Your task to perform on an android device: turn smart compose on in the gmail app Image 0: 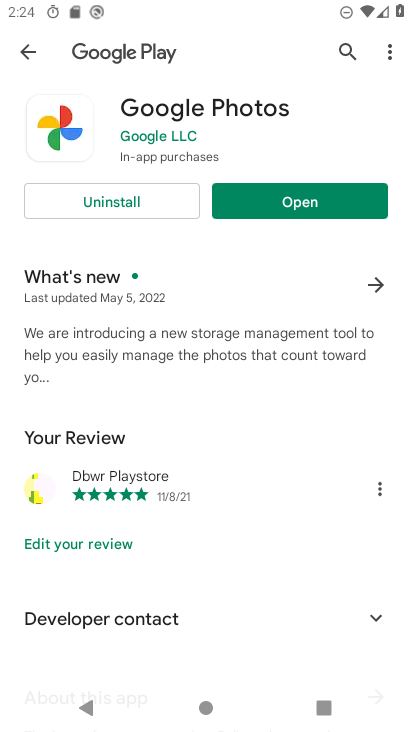
Step 0: press home button
Your task to perform on an android device: turn smart compose on in the gmail app Image 1: 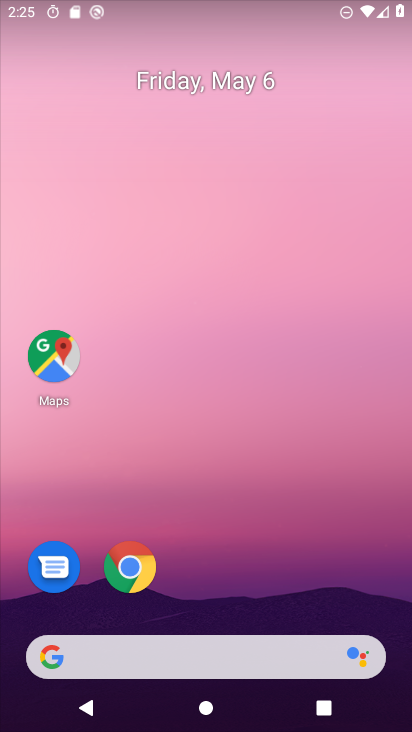
Step 1: drag from (323, 692) to (321, 197)
Your task to perform on an android device: turn smart compose on in the gmail app Image 2: 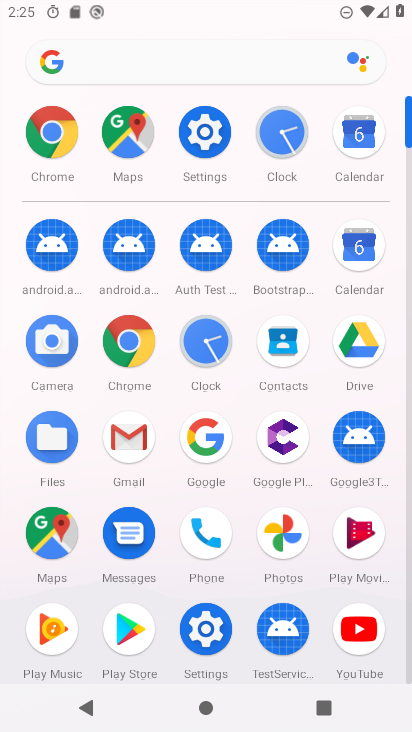
Step 2: click (114, 435)
Your task to perform on an android device: turn smart compose on in the gmail app Image 3: 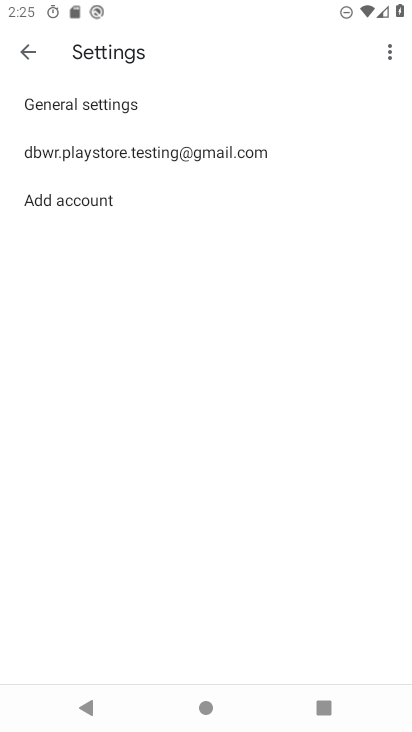
Step 3: click (190, 154)
Your task to perform on an android device: turn smart compose on in the gmail app Image 4: 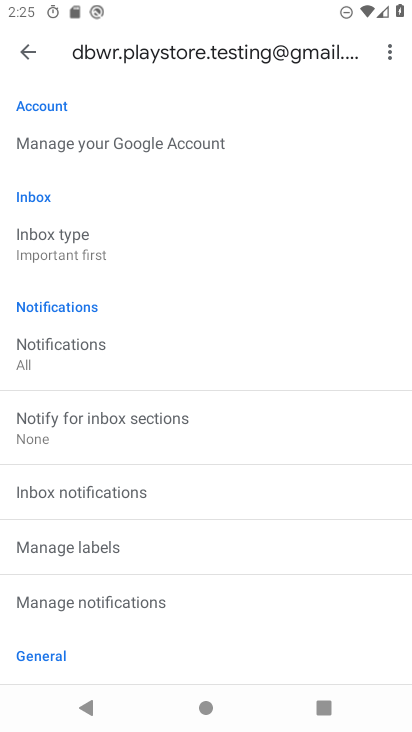
Step 4: drag from (147, 540) to (240, 191)
Your task to perform on an android device: turn smart compose on in the gmail app Image 5: 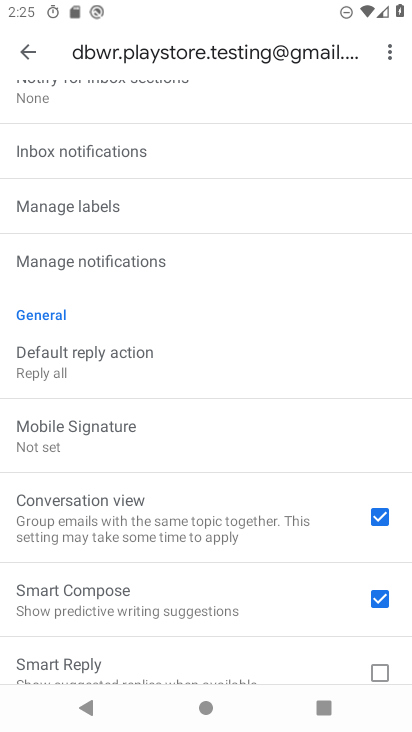
Step 5: drag from (183, 544) to (233, 272)
Your task to perform on an android device: turn smart compose on in the gmail app Image 6: 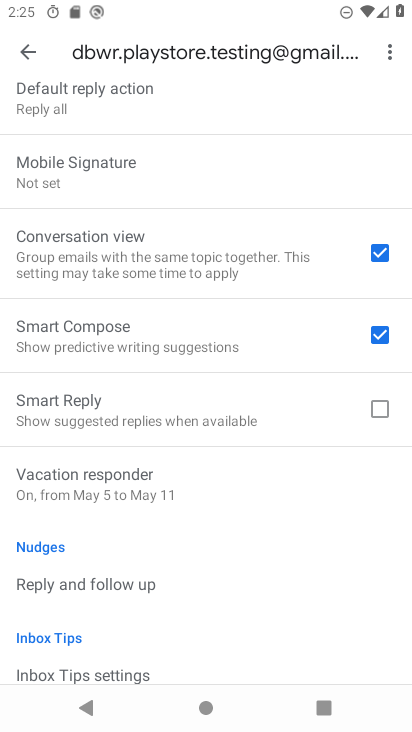
Step 6: drag from (192, 487) to (248, 259)
Your task to perform on an android device: turn smart compose on in the gmail app Image 7: 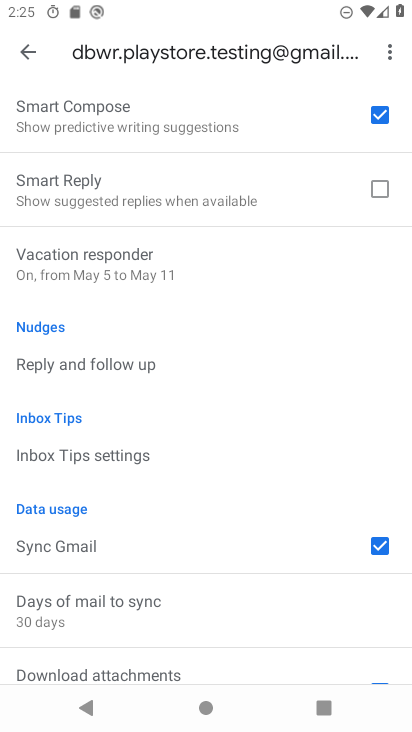
Step 7: click (304, 118)
Your task to perform on an android device: turn smart compose on in the gmail app Image 8: 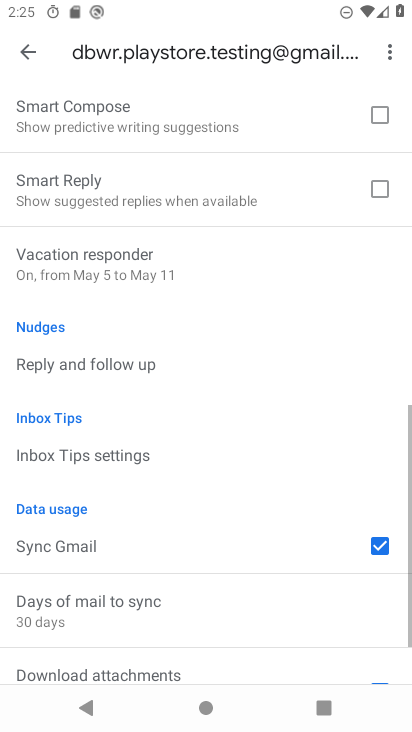
Step 8: click (302, 128)
Your task to perform on an android device: turn smart compose on in the gmail app Image 9: 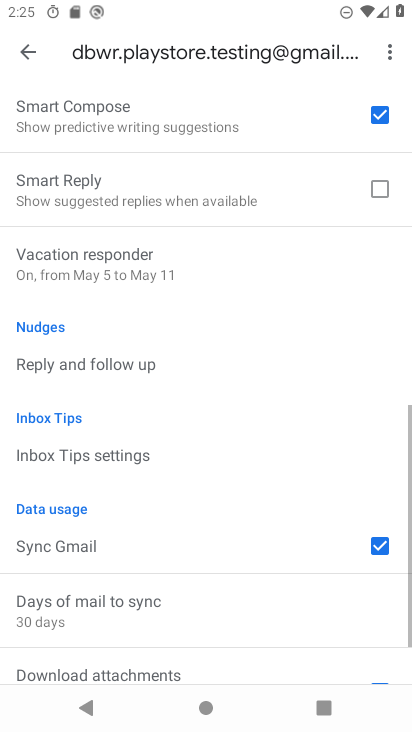
Step 9: task complete